Your task to perform on an android device: uninstall "Firefox Browser" Image 0: 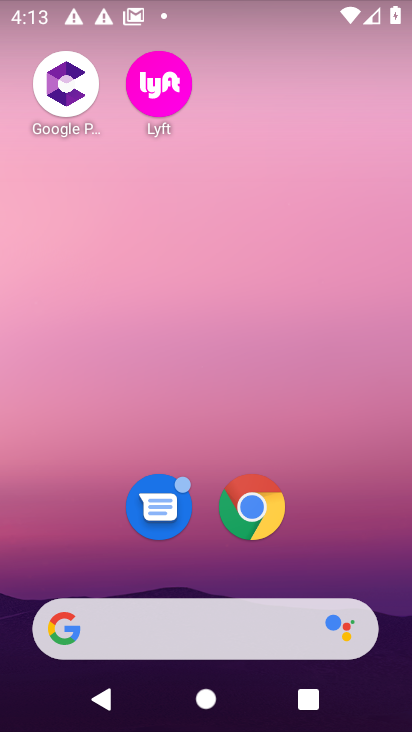
Step 0: drag from (342, 567) to (312, 6)
Your task to perform on an android device: uninstall "Firefox Browser" Image 1: 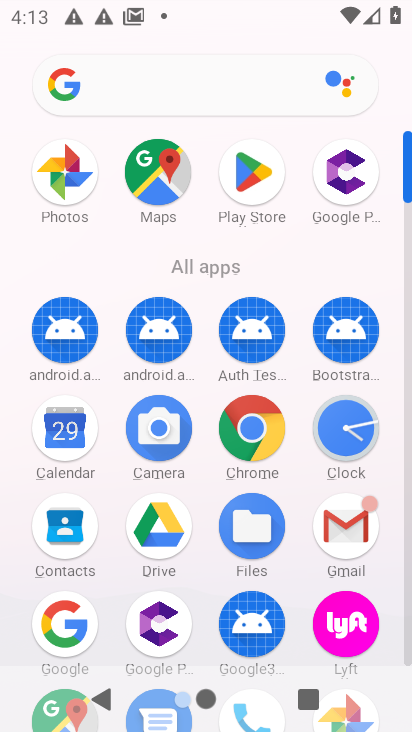
Step 1: click (241, 173)
Your task to perform on an android device: uninstall "Firefox Browser" Image 2: 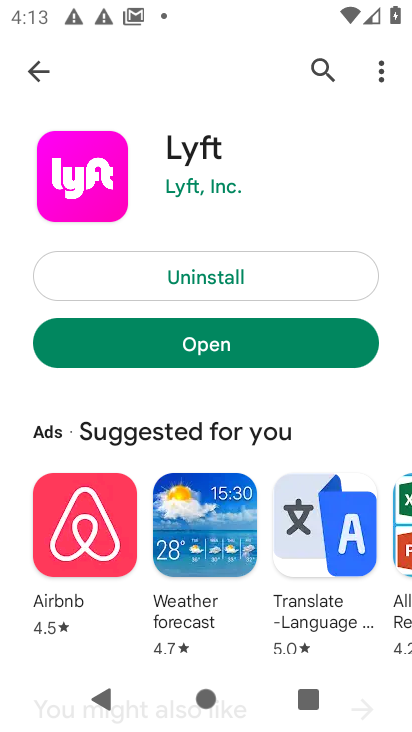
Step 2: click (323, 71)
Your task to perform on an android device: uninstall "Firefox Browser" Image 3: 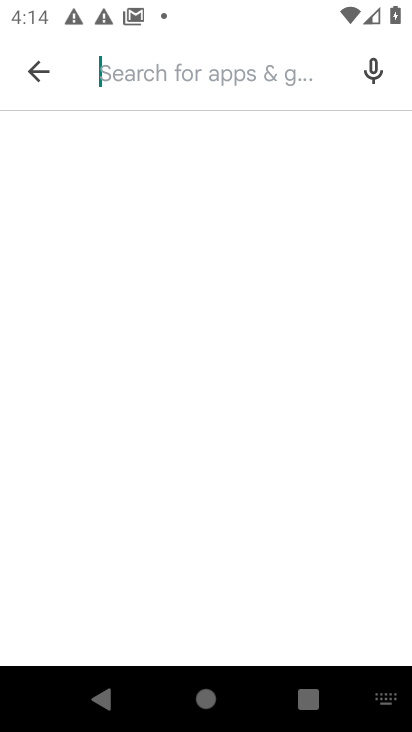
Step 3: type "Firefox Browser"
Your task to perform on an android device: uninstall "Firefox Browser" Image 4: 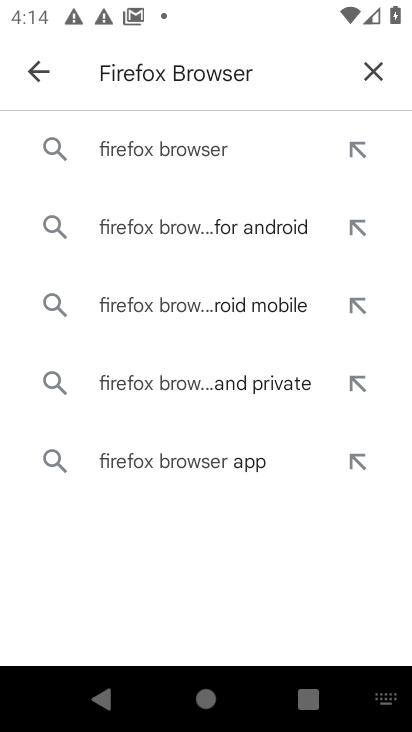
Step 4: click (118, 155)
Your task to perform on an android device: uninstall "Firefox Browser" Image 5: 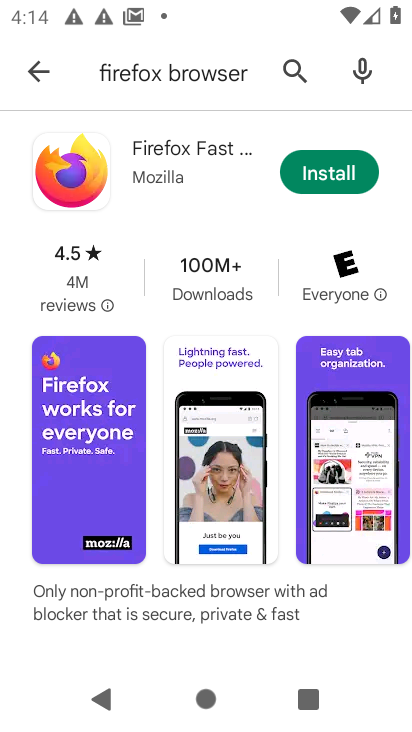
Step 5: task complete